Your task to perform on an android device: What is the news today? Image 0: 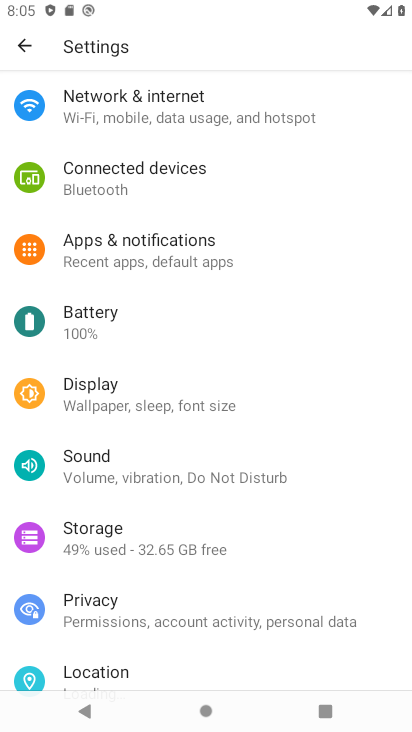
Step 0: press home button
Your task to perform on an android device: What is the news today? Image 1: 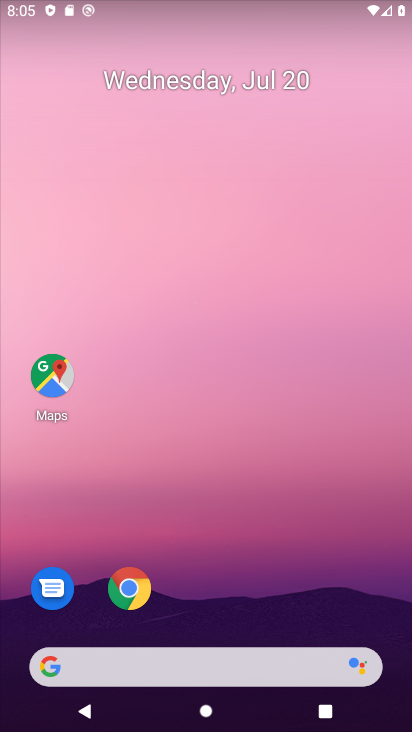
Step 1: click (86, 661)
Your task to perform on an android device: What is the news today? Image 2: 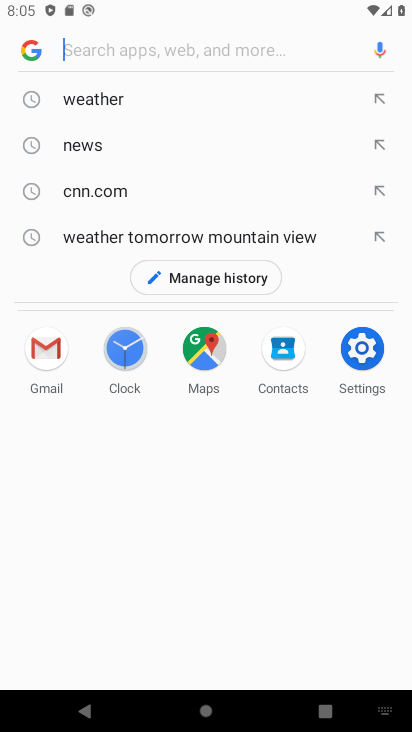
Step 2: type "What is the news today?"
Your task to perform on an android device: What is the news today? Image 3: 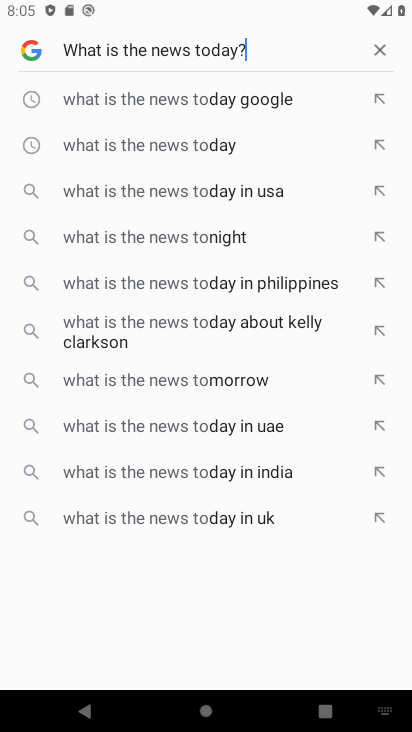
Step 3: type ""
Your task to perform on an android device: What is the news today? Image 4: 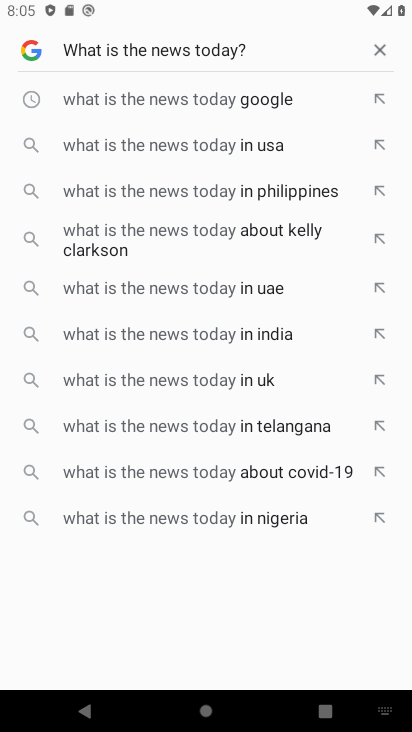
Step 4: type ""
Your task to perform on an android device: What is the news today? Image 5: 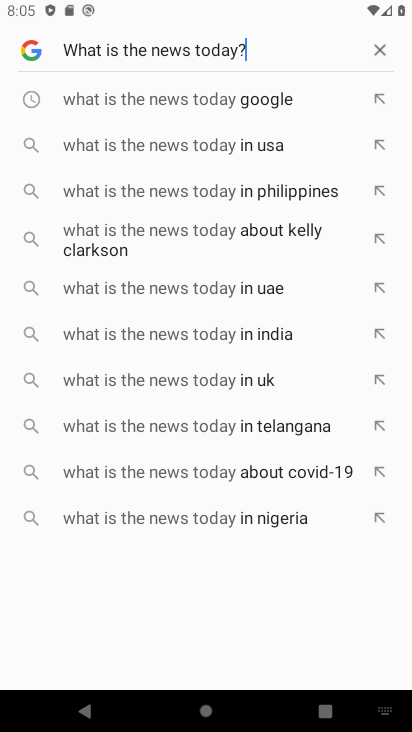
Step 5: type ""
Your task to perform on an android device: What is the news today? Image 6: 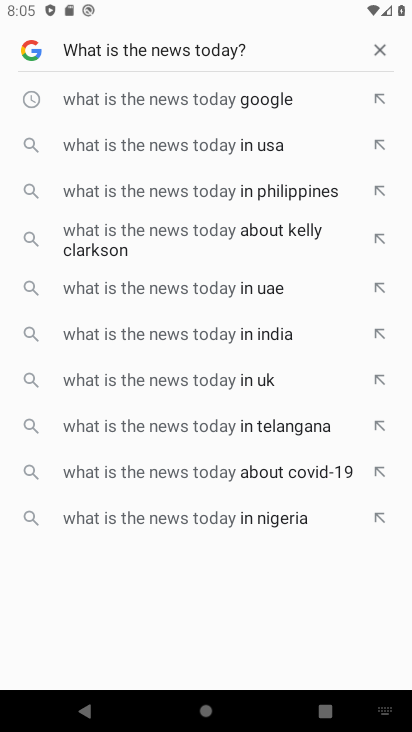
Step 6: type ""
Your task to perform on an android device: What is the news today? Image 7: 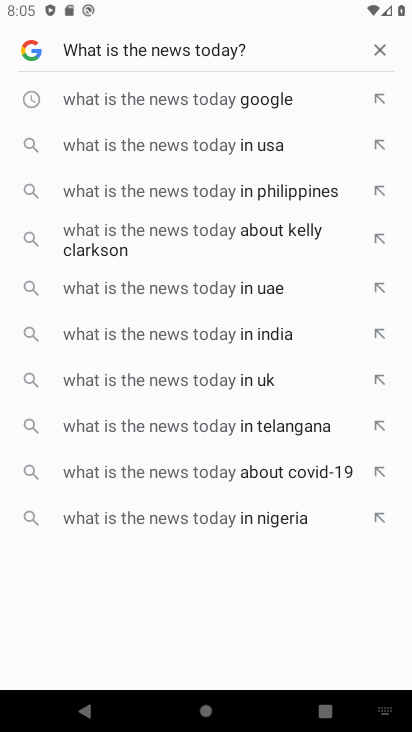
Step 7: type ""
Your task to perform on an android device: What is the news today? Image 8: 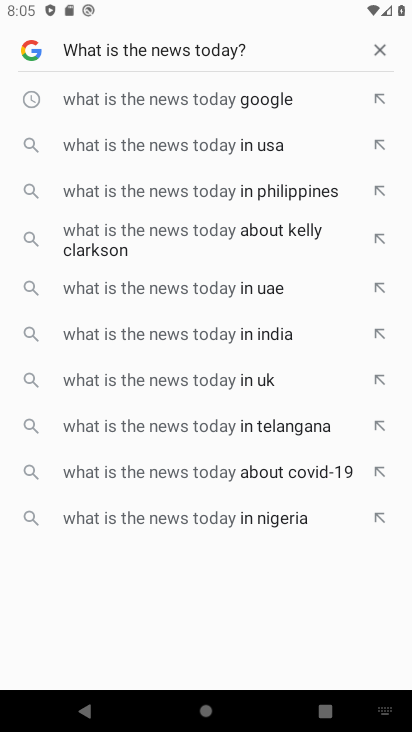
Step 8: task complete